Your task to perform on an android device: turn on location history Image 0: 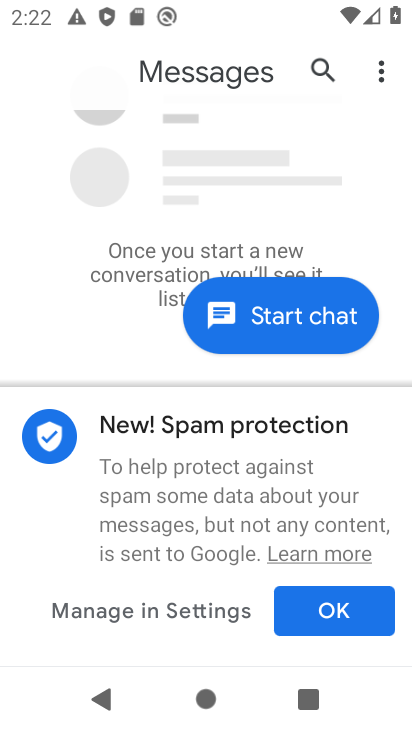
Step 0: press home button
Your task to perform on an android device: turn on location history Image 1: 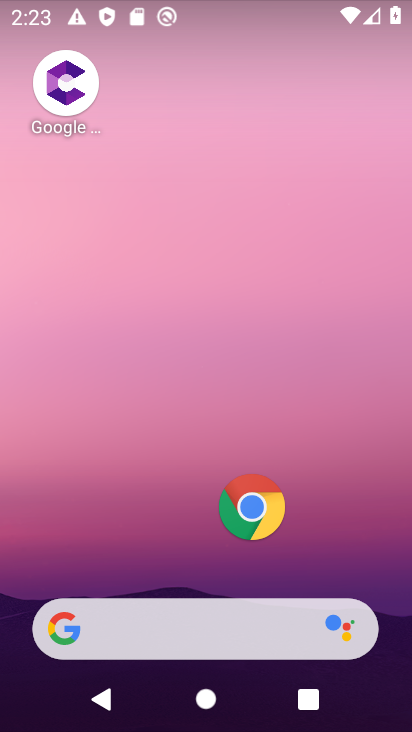
Step 1: drag from (150, 558) to (218, 1)
Your task to perform on an android device: turn on location history Image 2: 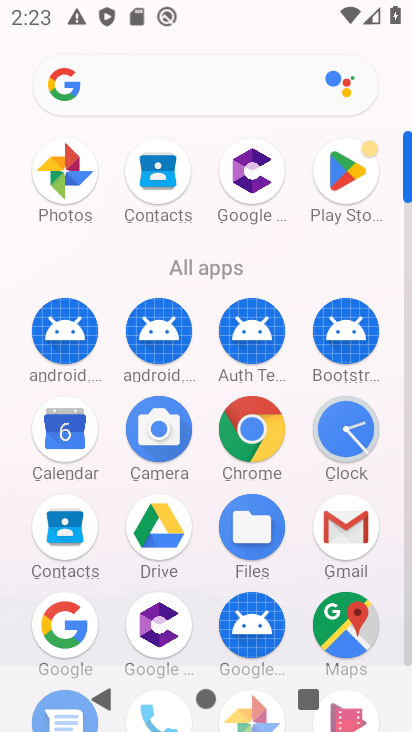
Step 2: drag from (187, 558) to (187, 88)
Your task to perform on an android device: turn on location history Image 3: 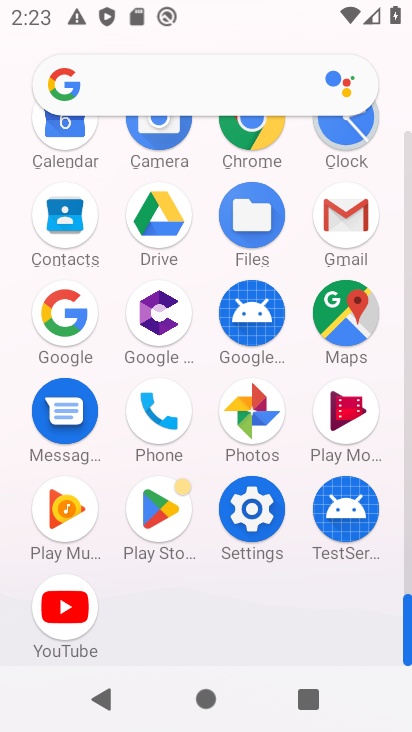
Step 3: click (259, 538)
Your task to perform on an android device: turn on location history Image 4: 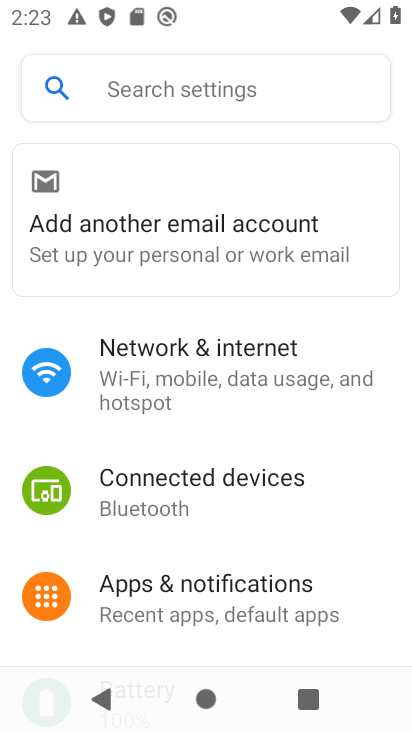
Step 4: drag from (208, 602) to (206, 140)
Your task to perform on an android device: turn on location history Image 5: 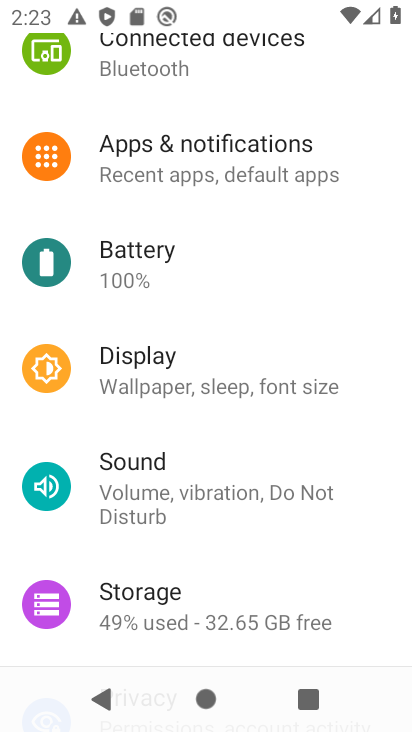
Step 5: drag from (200, 541) to (199, 221)
Your task to perform on an android device: turn on location history Image 6: 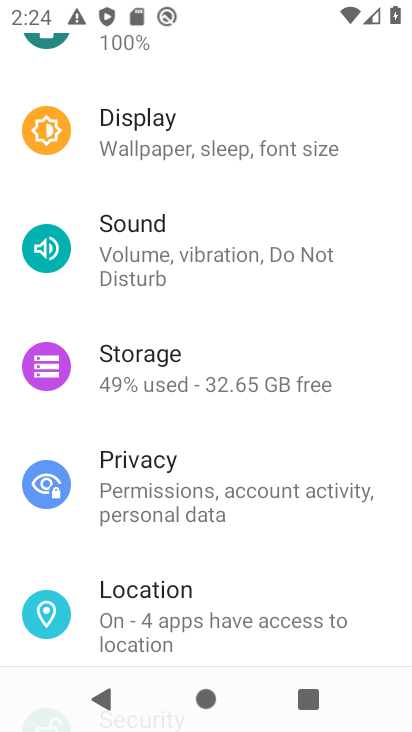
Step 6: click (145, 593)
Your task to perform on an android device: turn on location history Image 7: 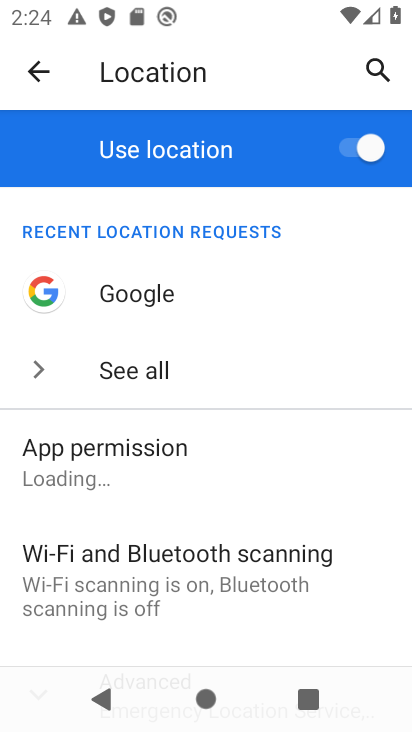
Step 7: click (138, 611)
Your task to perform on an android device: turn on location history Image 8: 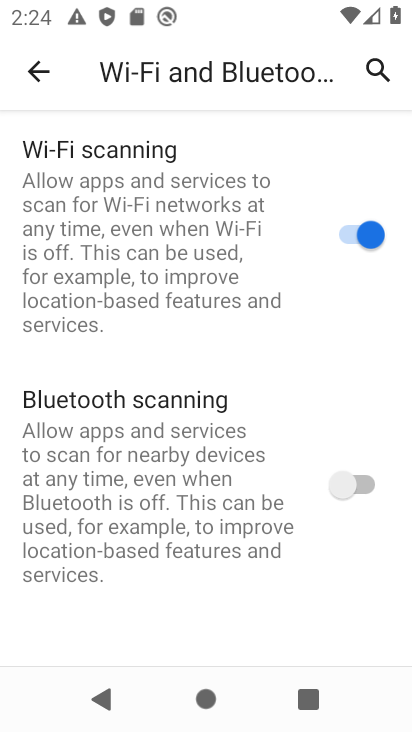
Step 8: click (33, 63)
Your task to perform on an android device: turn on location history Image 9: 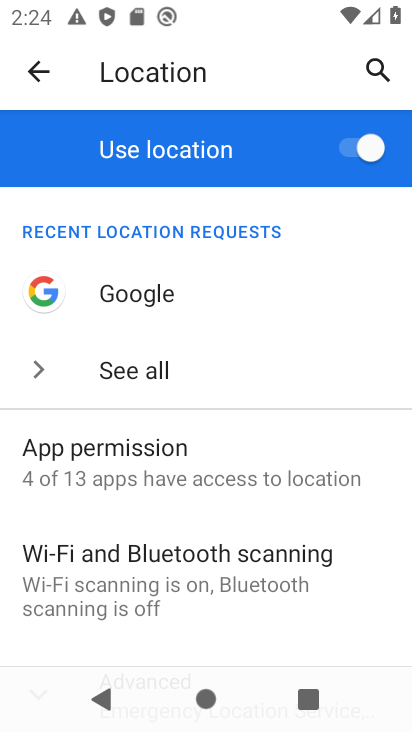
Step 9: drag from (159, 532) to (156, 82)
Your task to perform on an android device: turn on location history Image 10: 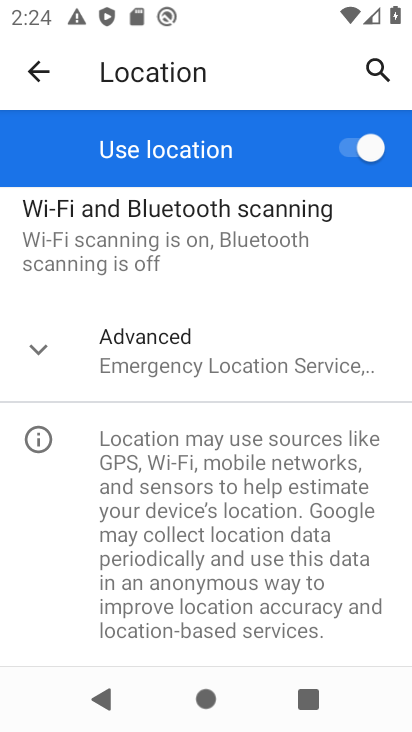
Step 10: click (156, 350)
Your task to perform on an android device: turn on location history Image 11: 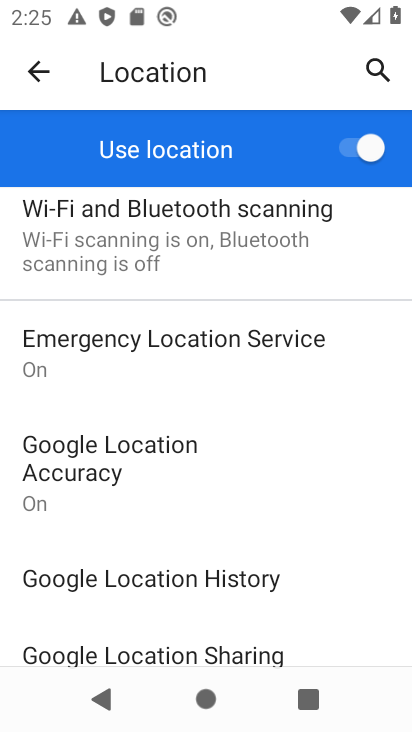
Step 11: click (212, 577)
Your task to perform on an android device: turn on location history Image 12: 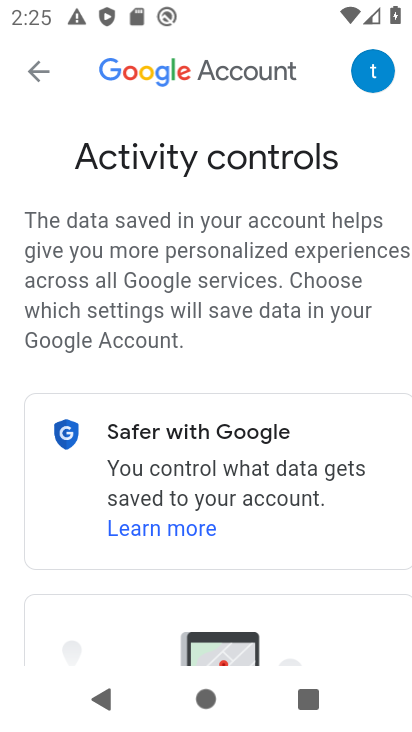
Step 12: task complete